Your task to perform on an android device: What's the weather today? Image 0: 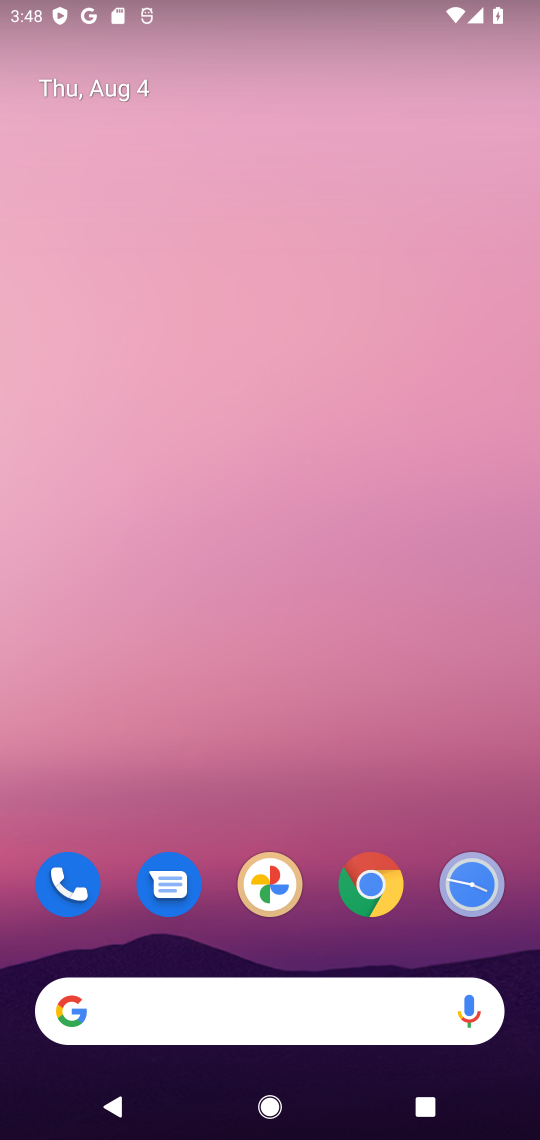
Step 0: drag from (236, 928) to (385, 163)
Your task to perform on an android device: What's the weather today? Image 1: 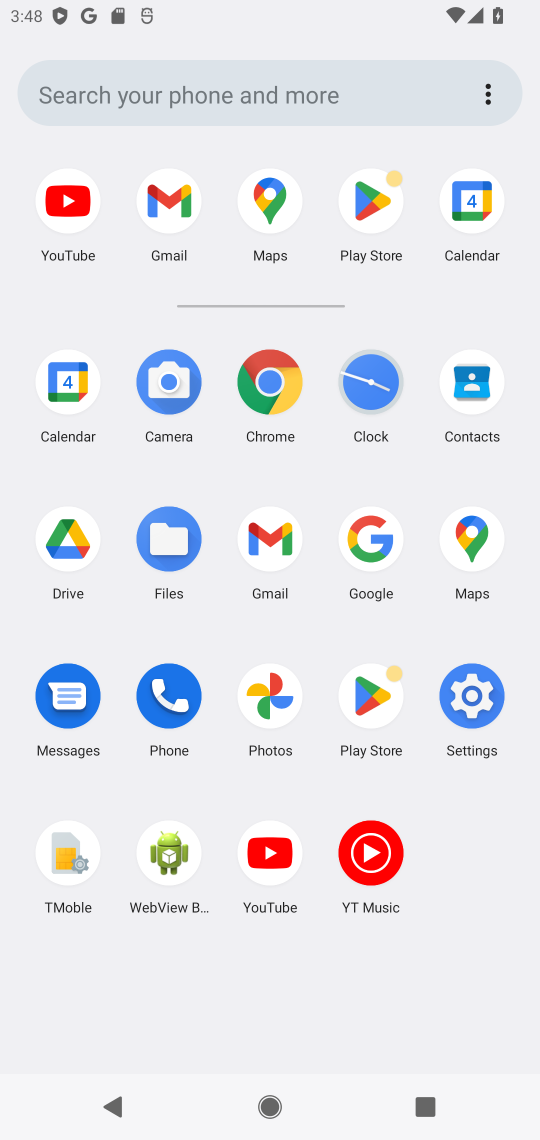
Step 1: click (90, 106)
Your task to perform on an android device: What's the weather today? Image 2: 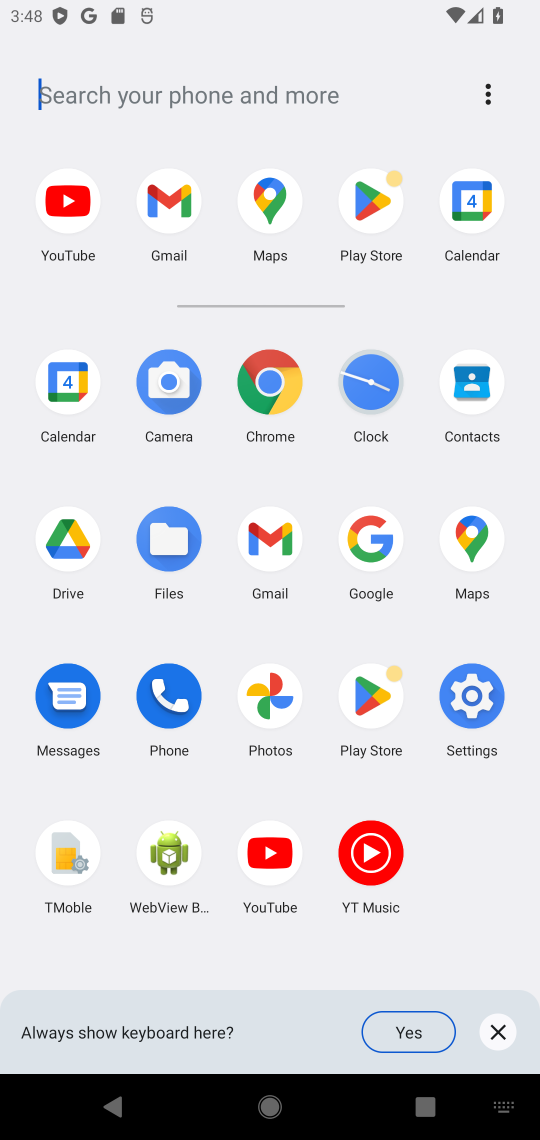
Step 2: type "weather today?"
Your task to perform on an android device: What's the weather today? Image 3: 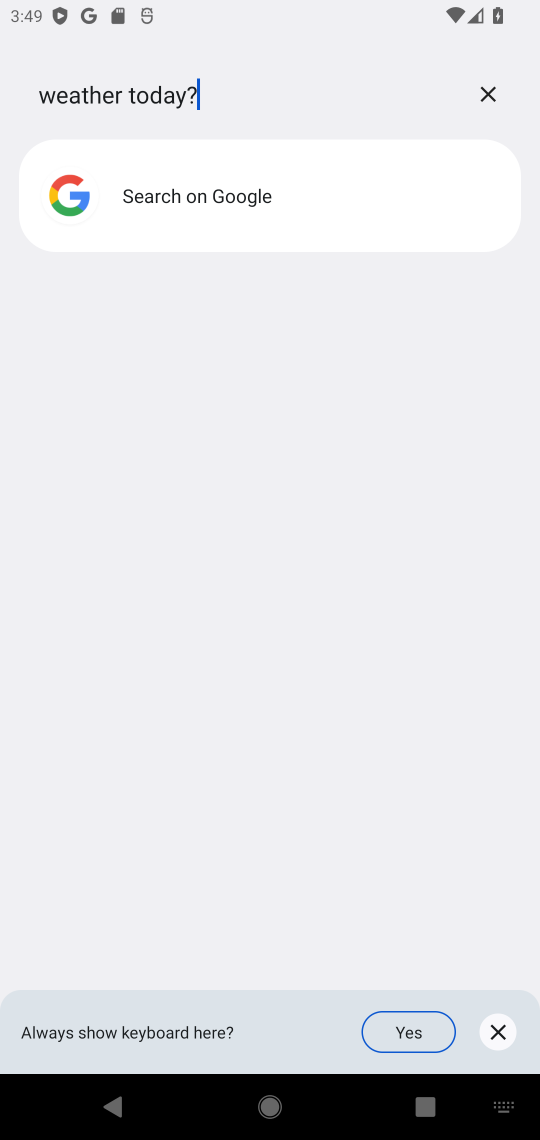
Step 3: click (199, 213)
Your task to perform on an android device: What's the weather today? Image 4: 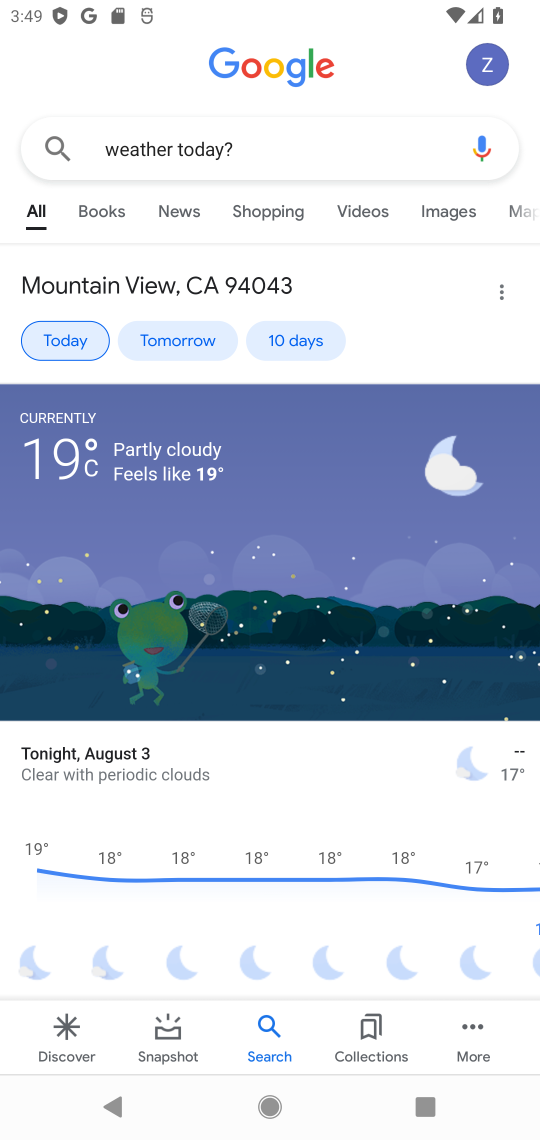
Step 4: task complete